Your task to perform on an android device: What's the weather going to be this weekend? Image 0: 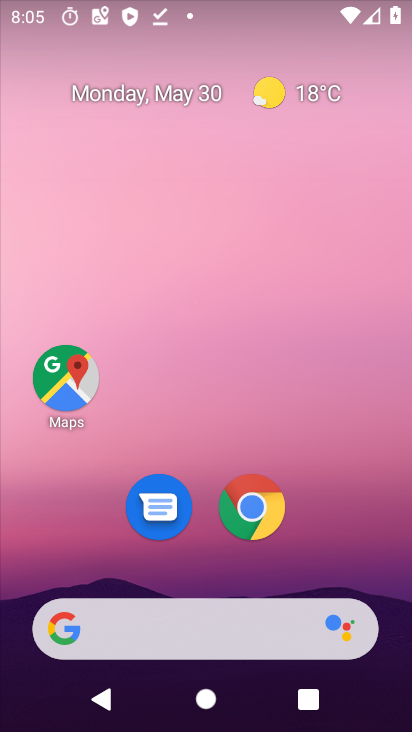
Step 0: drag from (264, 548) to (303, 118)
Your task to perform on an android device: What's the weather going to be this weekend? Image 1: 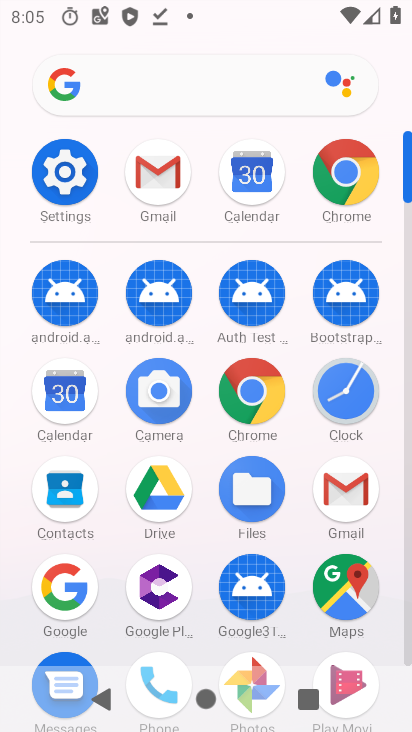
Step 1: click (240, 417)
Your task to perform on an android device: What's the weather going to be this weekend? Image 2: 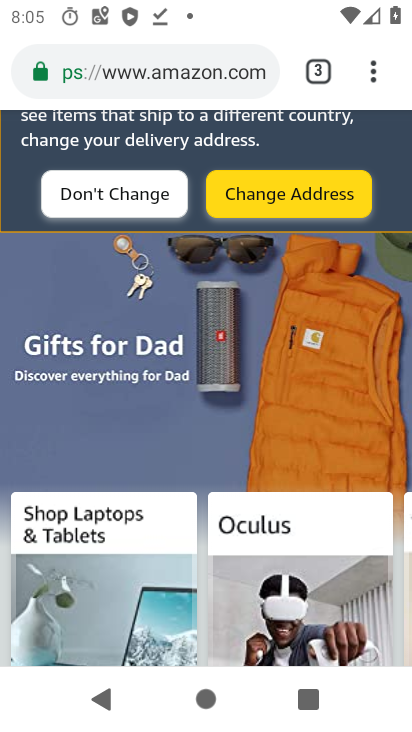
Step 2: click (174, 83)
Your task to perform on an android device: What's the weather going to be this weekend? Image 3: 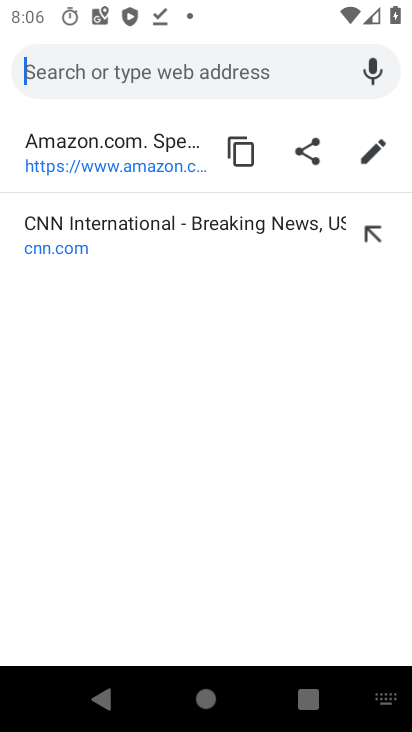
Step 3: type "what's the weather going to be this weekend "
Your task to perform on an android device: What's the weather going to be this weekend? Image 4: 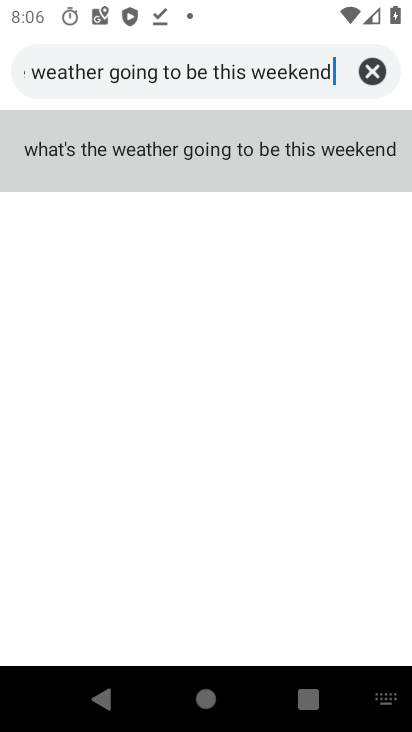
Step 4: click (135, 150)
Your task to perform on an android device: What's the weather going to be this weekend? Image 5: 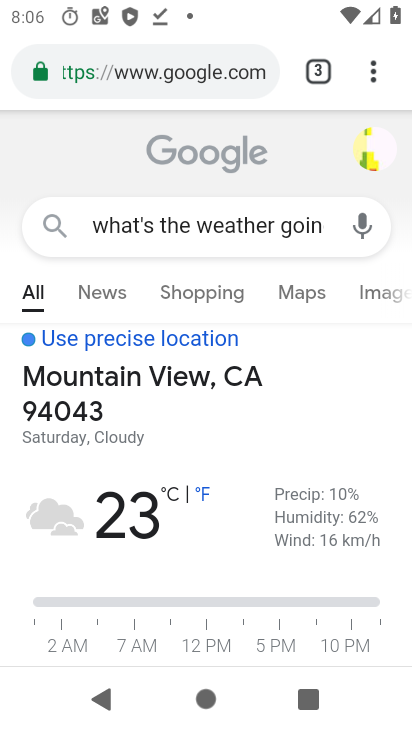
Step 5: task complete